Your task to perform on an android device: Search for Mexican restaurants on Maps Image 0: 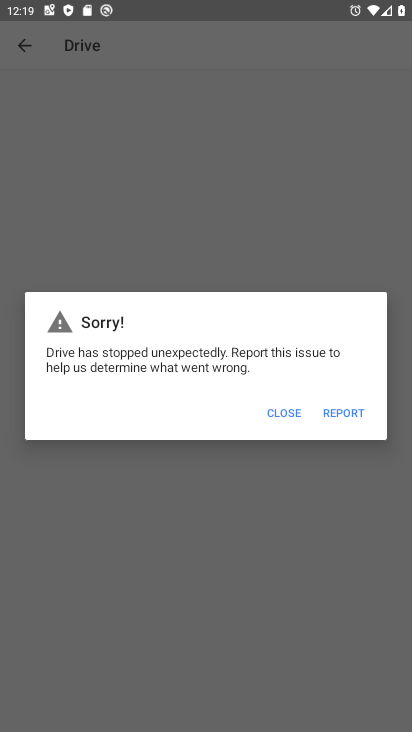
Step 0: press home button
Your task to perform on an android device: Search for Mexican restaurants on Maps Image 1: 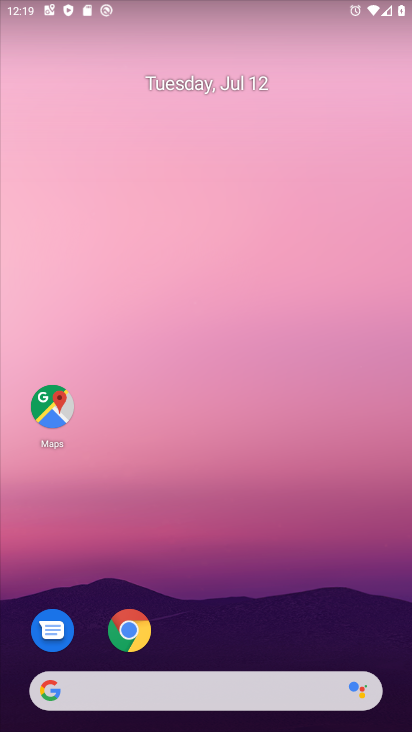
Step 1: click (53, 411)
Your task to perform on an android device: Search for Mexican restaurants on Maps Image 2: 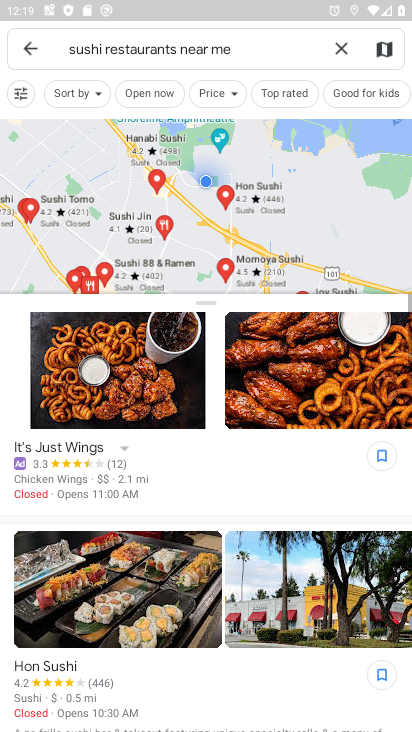
Step 2: click (339, 46)
Your task to perform on an android device: Search for Mexican restaurants on Maps Image 3: 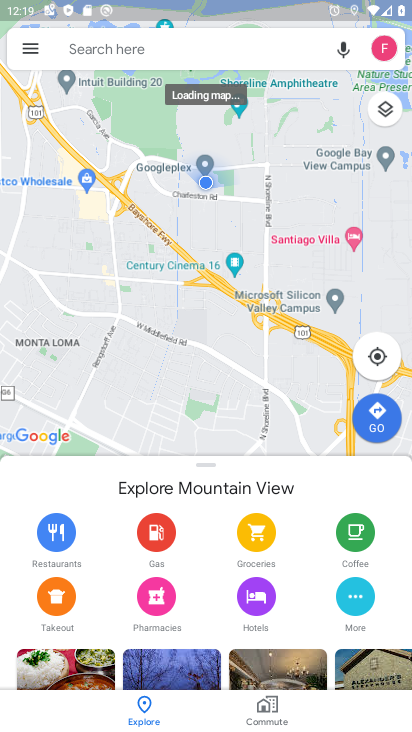
Step 3: click (198, 38)
Your task to perform on an android device: Search for Mexican restaurants on Maps Image 4: 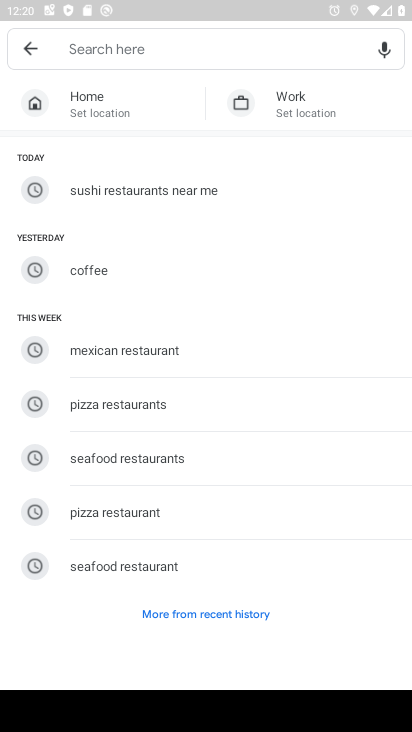
Step 4: type "Mexican restaurants"
Your task to perform on an android device: Search for Mexican restaurants on Maps Image 5: 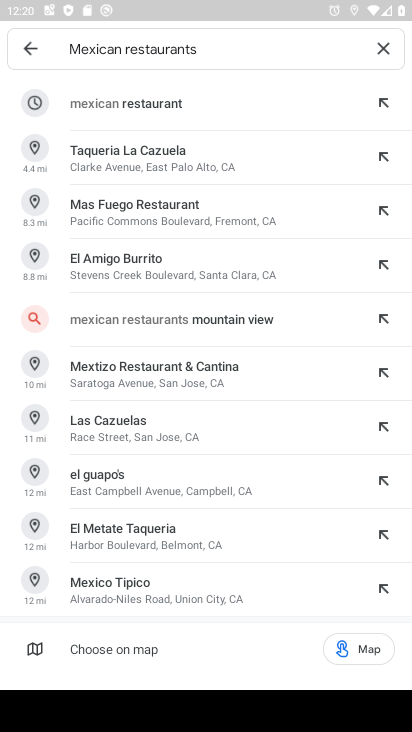
Step 5: click (143, 105)
Your task to perform on an android device: Search for Mexican restaurants on Maps Image 6: 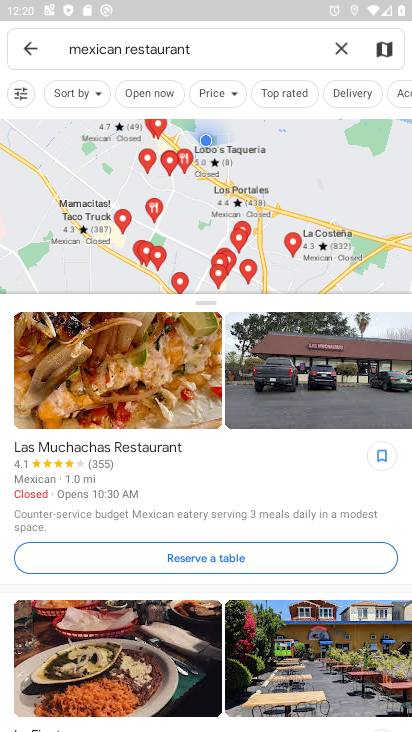
Step 6: task complete